Your task to perform on an android device: Do I have any events this weekend? Image 0: 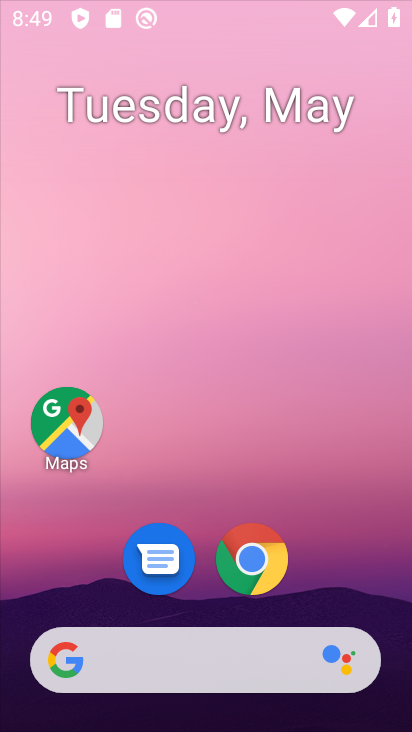
Step 0: drag from (361, 614) to (144, 7)
Your task to perform on an android device: Do I have any events this weekend? Image 1: 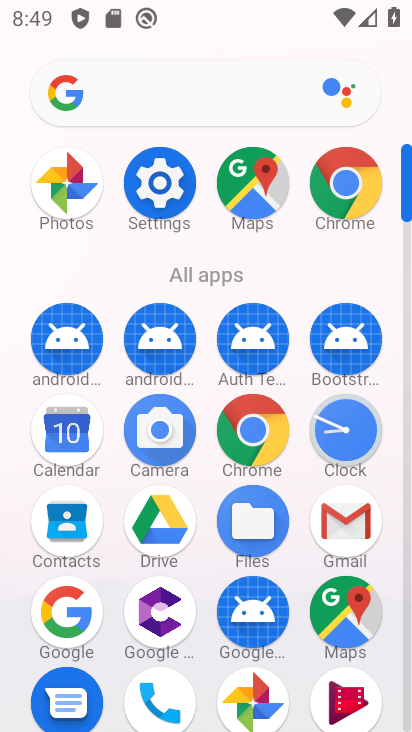
Step 1: click (58, 433)
Your task to perform on an android device: Do I have any events this weekend? Image 2: 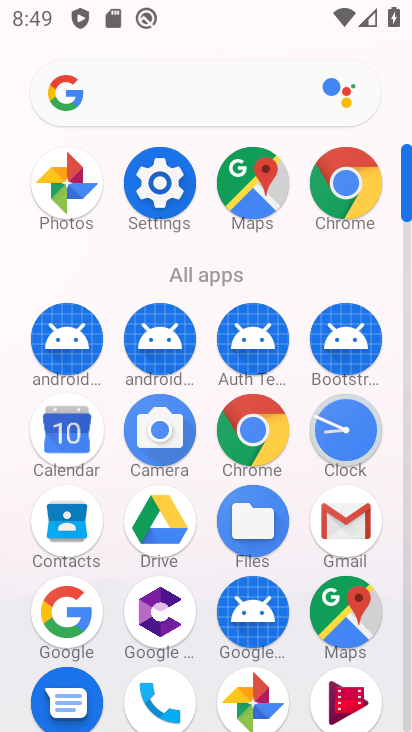
Step 2: click (58, 433)
Your task to perform on an android device: Do I have any events this weekend? Image 3: 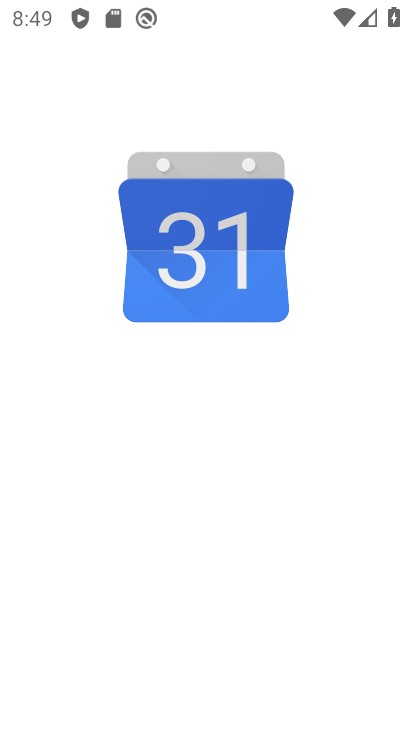
Step 3: click (59, 432)
Your task to perform on an android device: Do I have any events this weekend? Image 4: 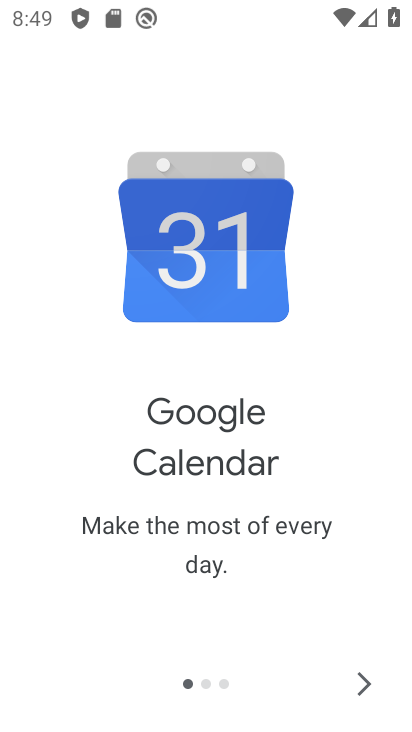
Step 4: click (365, 677)
Your task to perform on an android device: Do I have any events this weekend? Image 5: 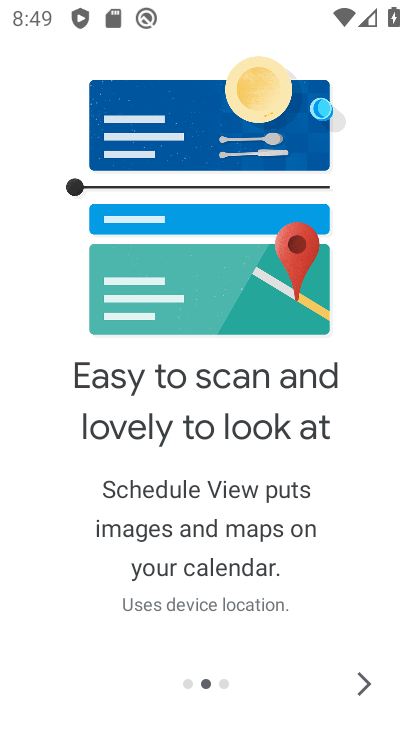
Step 5: click (360, 660)
Your task to perform on an android device: Do I have any events this weekend? Image 6: 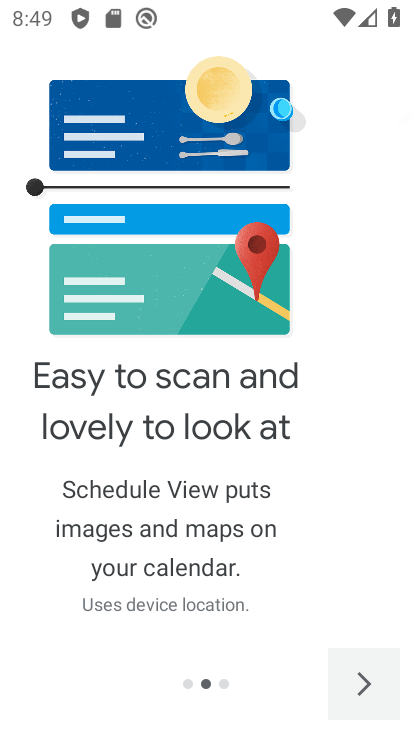
Step 6: click (367, 674)
Your task to perform on an android device: Do I have any events this weekend? Image 7: 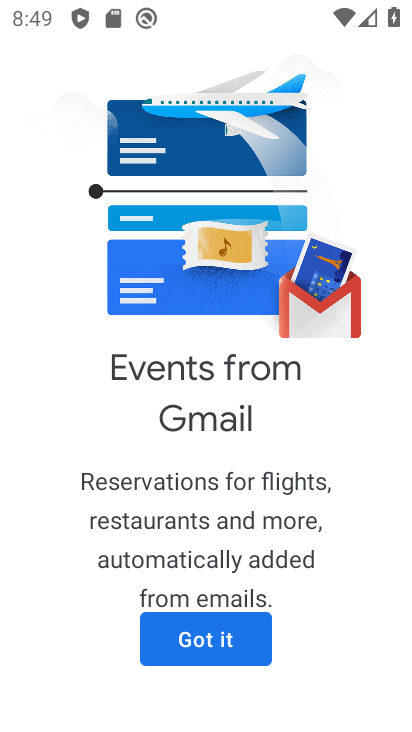
Step 7: click (228, 636)
Your task to perform on an android device: Do I have any events this weekend? Image 8: 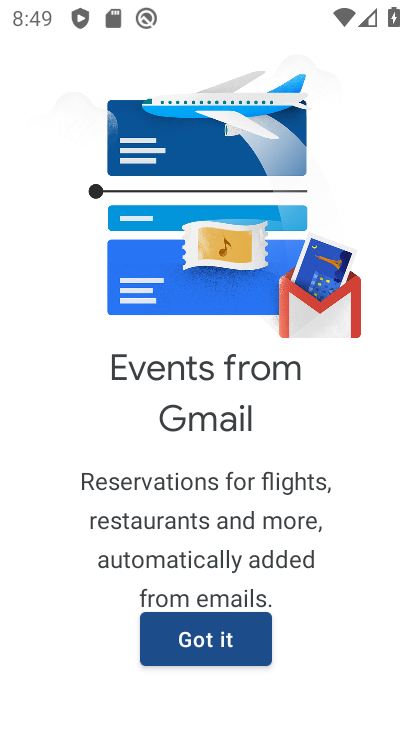
Step 8: click (223, 636)
Your task to perform on an android device: Do I have any events this weekend? Image 9: 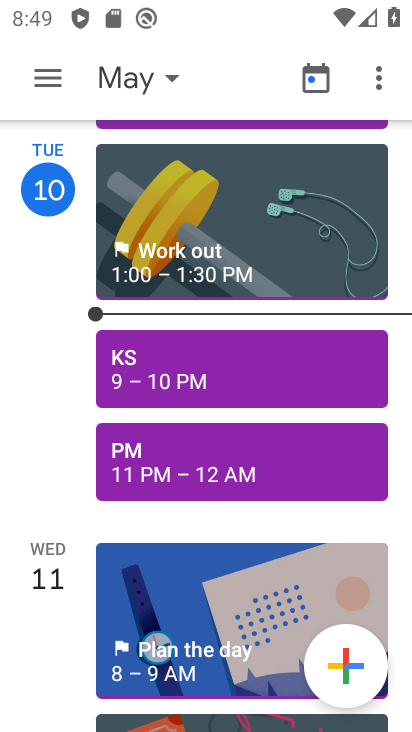
Step 9: click (169, 80)
Your task to perform on an android device: Do I have any events this weekend? Image 10: 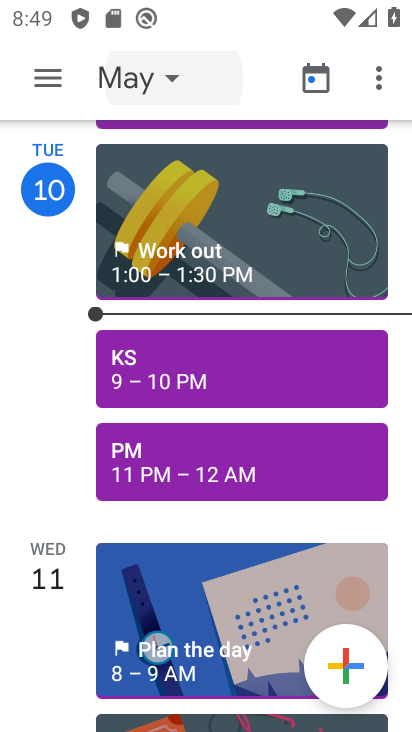
Step 10: click (169, 79)
Your task to perform on an android device: Do I have any events this weekend? Image 11: 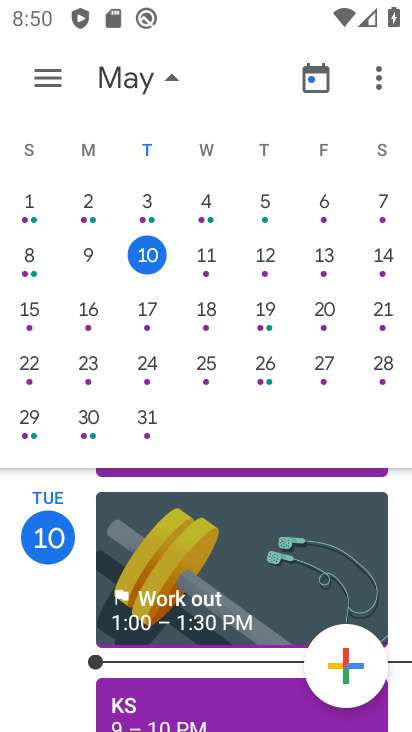
Step 11: click (326, 251)
Your task to perform on an android device: Do I have any events this weekend? Image 12: 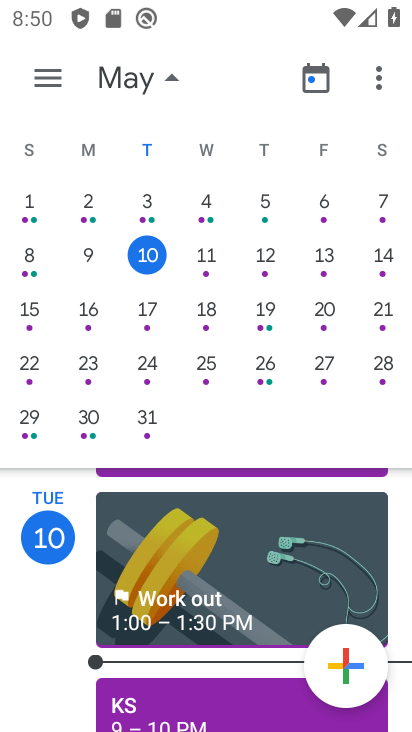
Step 12: click (326, 251)
Your task to perform on an android device: Do I have any events this weekend? Image 13: 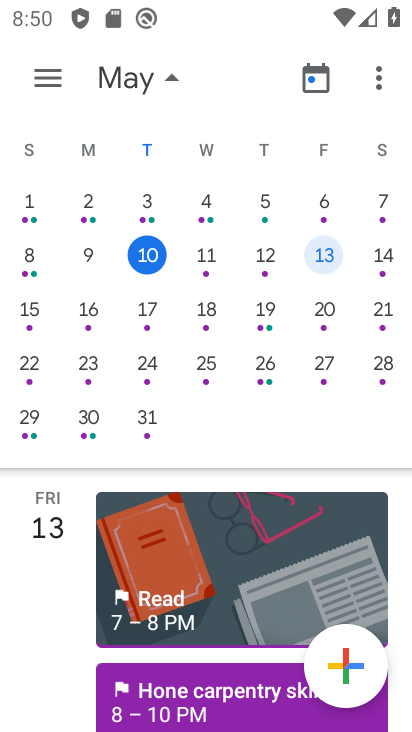
Step 13: click (327, 254)
Your task to perform on an android device: Do I have any events this weekend? Image 14: 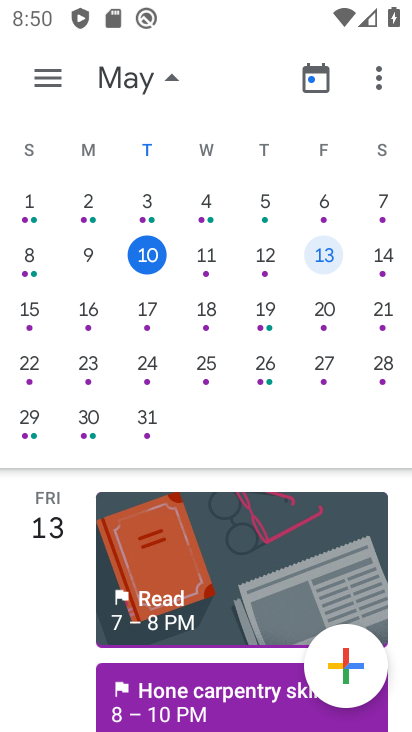
Step 14: click (322, 256)
Your task to perform on an android device: Do I have any events this weekend? Image 15: 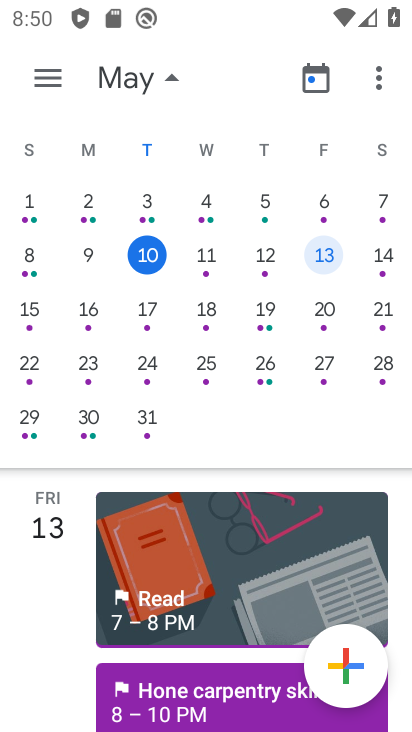
Step 15: drag from (219, 627) to (142, 47)
Your task to perform on an android device: Do I have any events this weekend? Image 16: 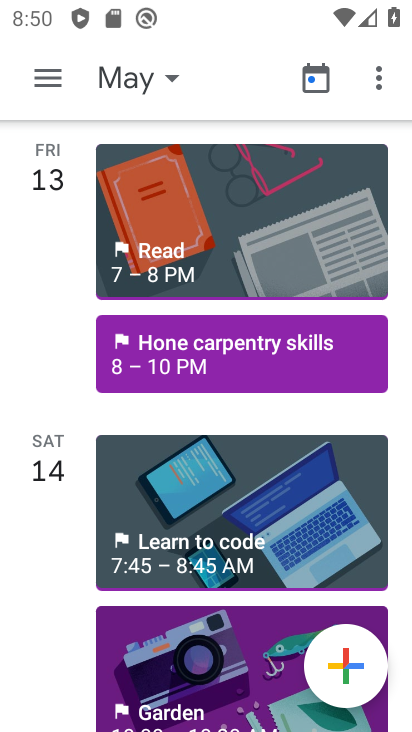
Step 16: drag from (229, 461) to (217, 135)
Your task to perform on an android device: Do I have any events this weekend? Image 17: 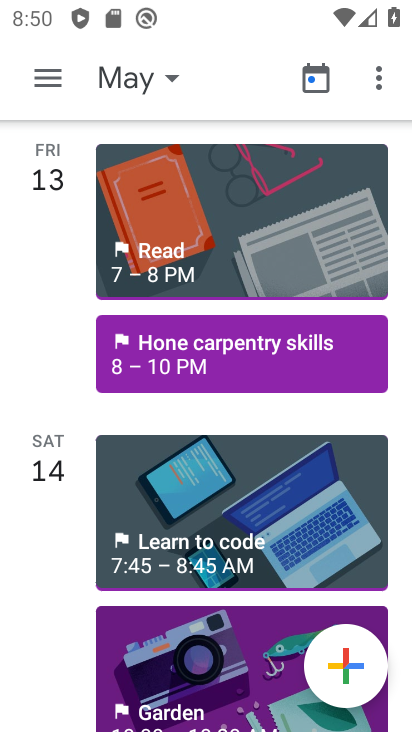
Step 17: drag from (238, 497) to (180, 92)
Your task to perform on an android device: Do I have any events this weekend? Image 18: 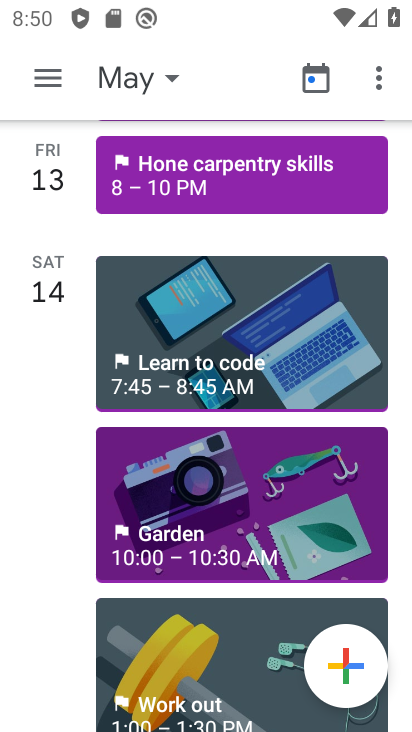
Step 18: click (160, 331)
Your task to perform on an android device: Do I have any events this weekend? Image 19: 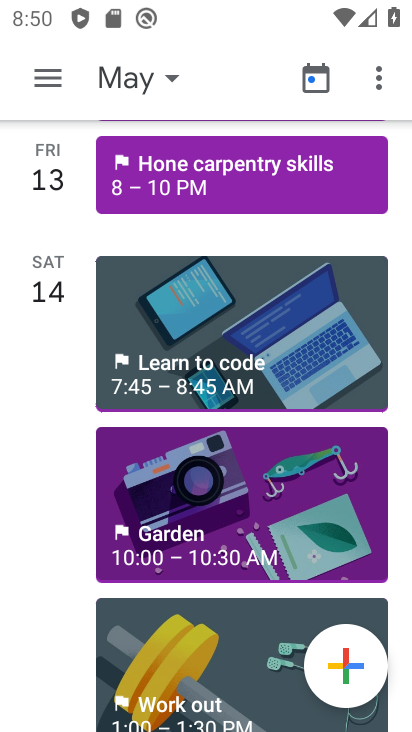
Step 19: click (170, 341)
Your task to perform on an android device: Do I have any events this weekend? Image 20: 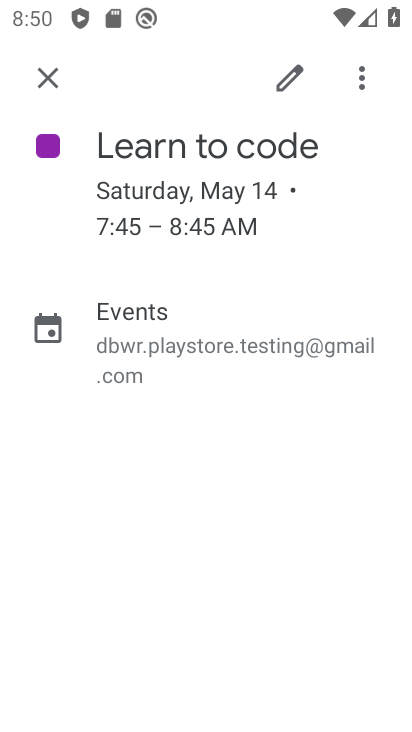
Step 20: task complete